Your task to perform on an android device: Open battery settings Image 0: 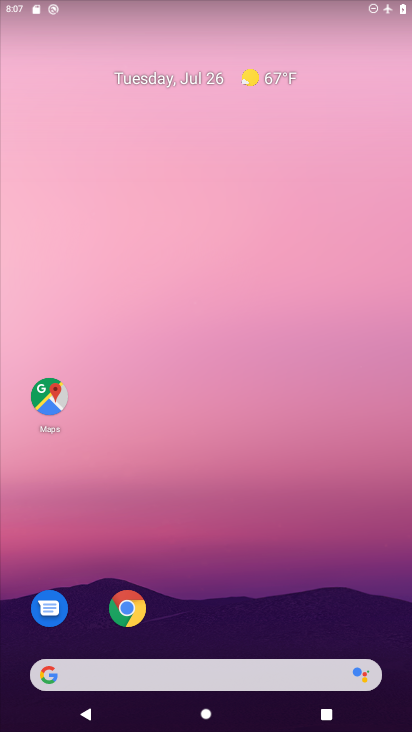
Step 0: drag from (211, 637) to (306, 67)
Your task to perform on an android device: Open battery settings Image 1: 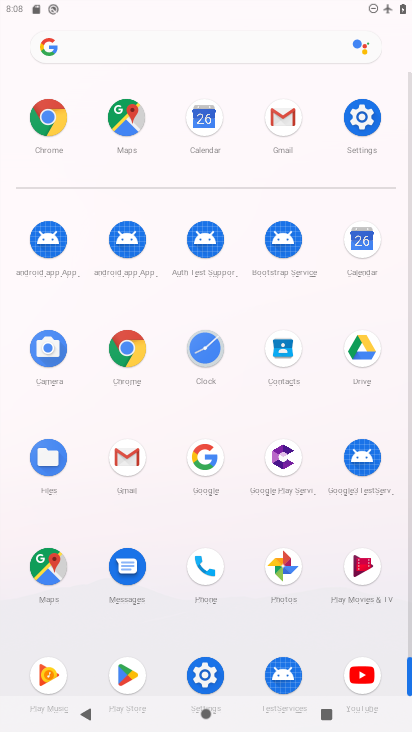
Step 1: click (204, 666)
Your task to perform on an android device: Open battery settings Image 2: 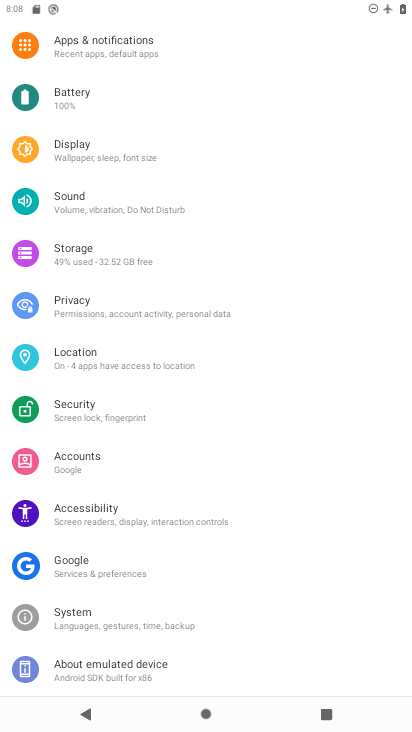
Step 2: click (99, 94)
Your task to perform on an android device: Open battery settings Image 3: 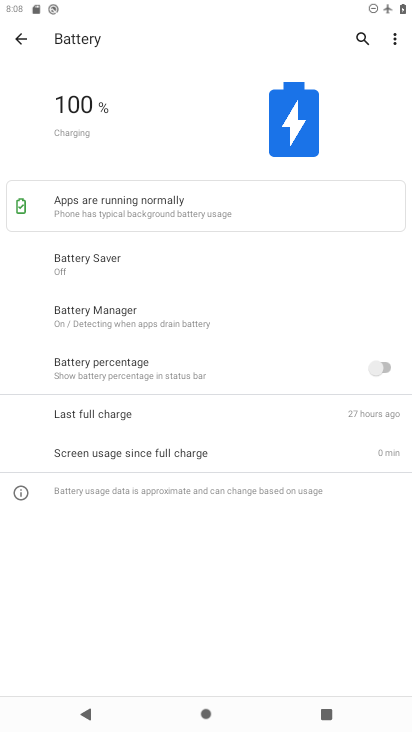
Step 3: task complete